Your task to perform on an android device: Go to eBay Image 0: 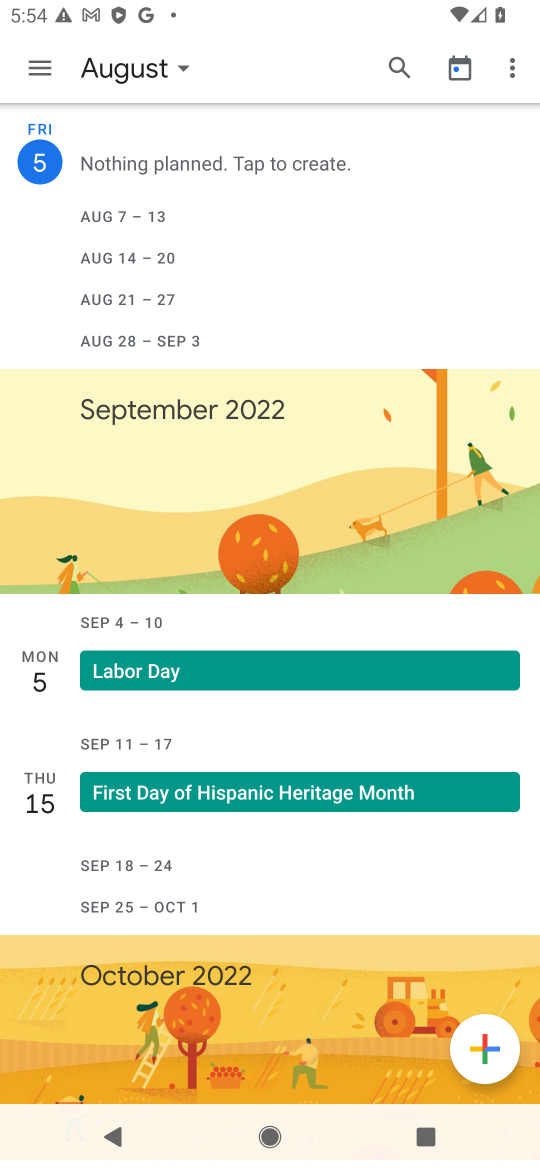
Step 0: press home button
Your task to perform on an android device: Go to eBay Image 1: 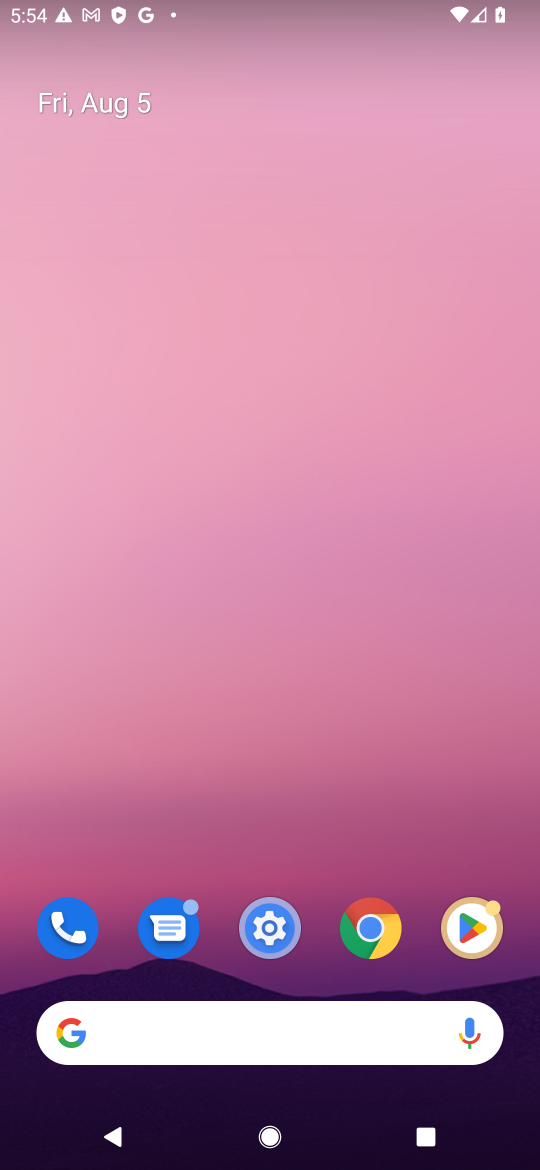
Step 1: click (385, 928)
Your task to perform on an android device: Go to eBay Image 2: 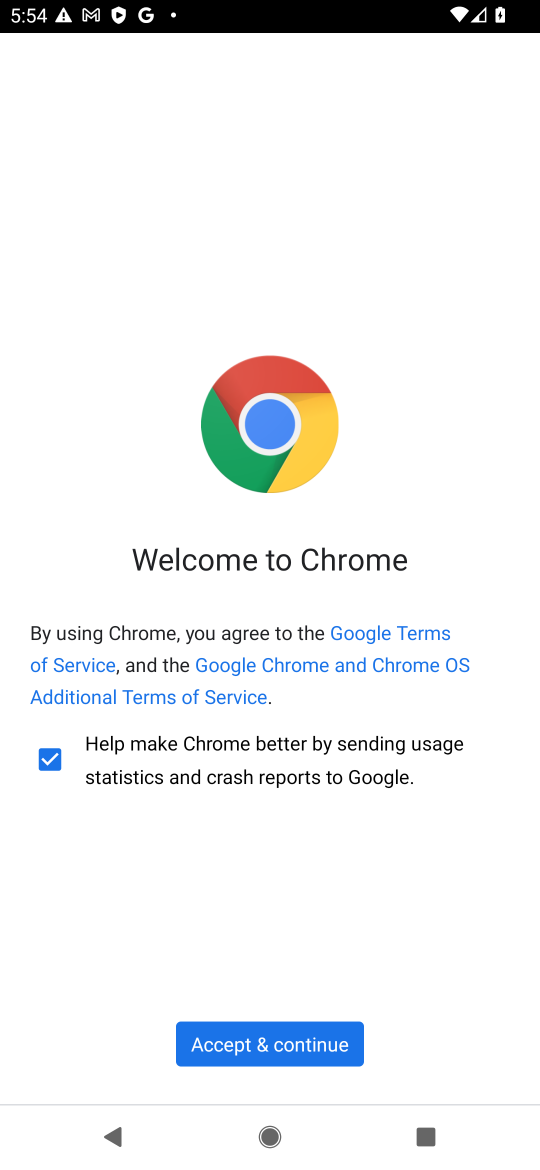
Step 2: click (300, 1046)
Your task to perform on an android device: Go to eBay Image 3: 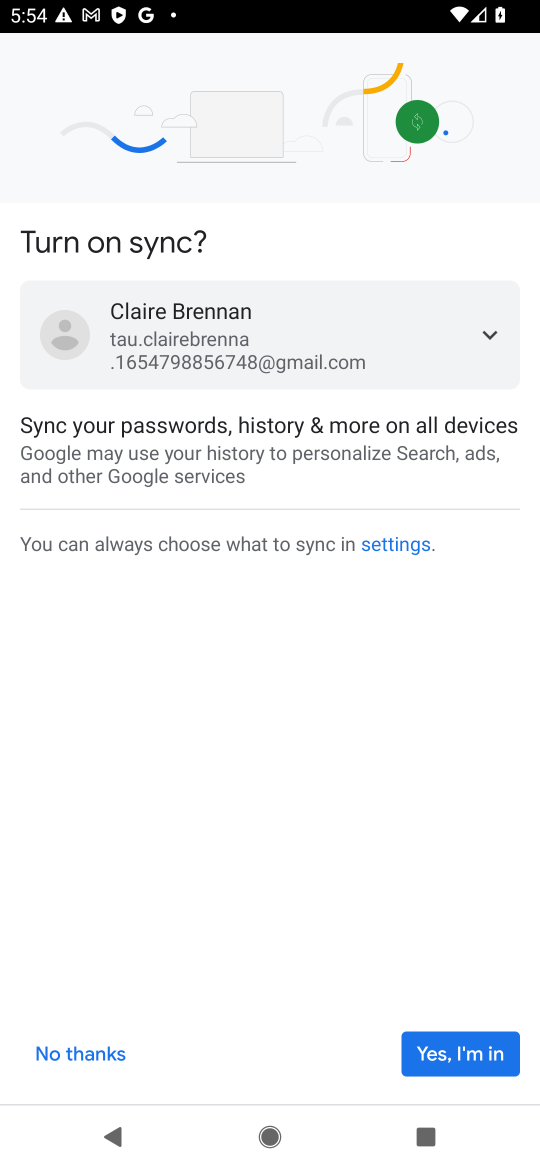
Step 3: click (467, 1027)
Your task to perform on an android device: Go to eBay Image 4: 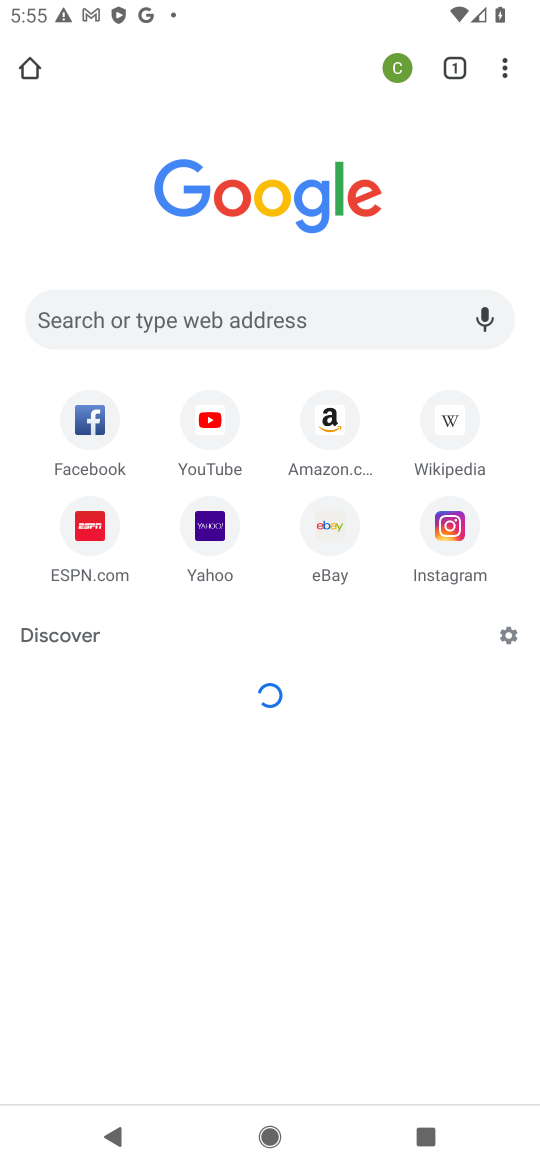
Step 4: click (332, 521)
Your task to perform on an android device: Go to eBay Image 5: 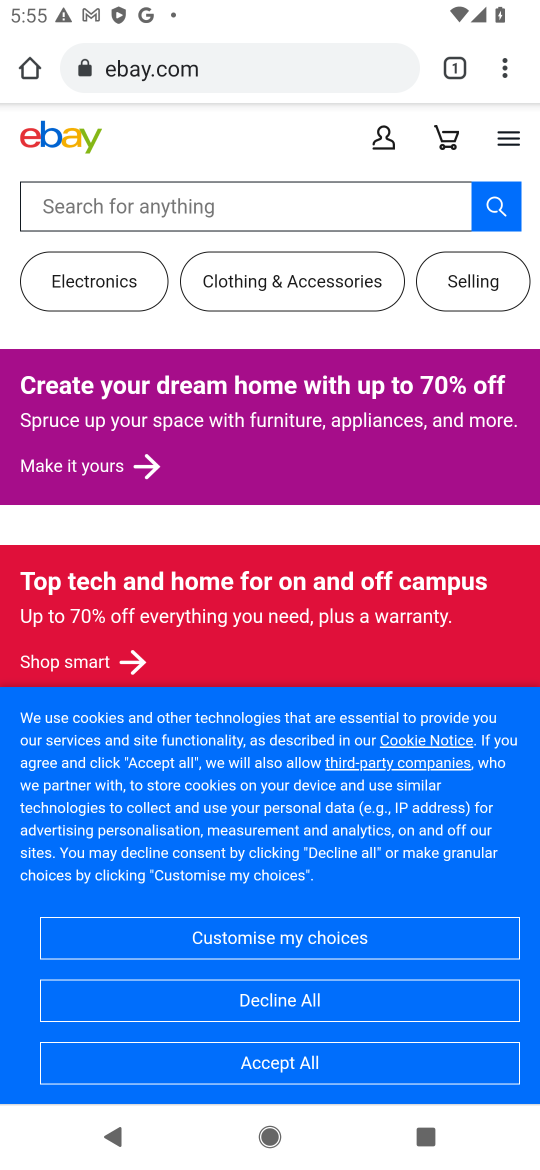
Step 5: task complete